Your task to perform on an android device: check google app version Image 0: 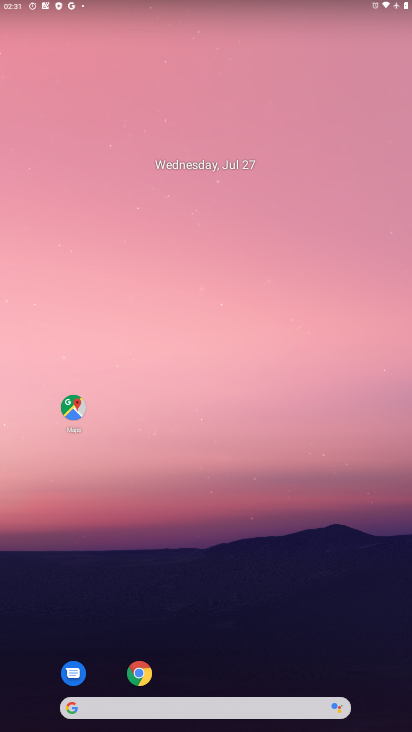
Step 0: drag from (208, 674) to (240, 4)
Your task to perform on an android device: check google app version Image 1: 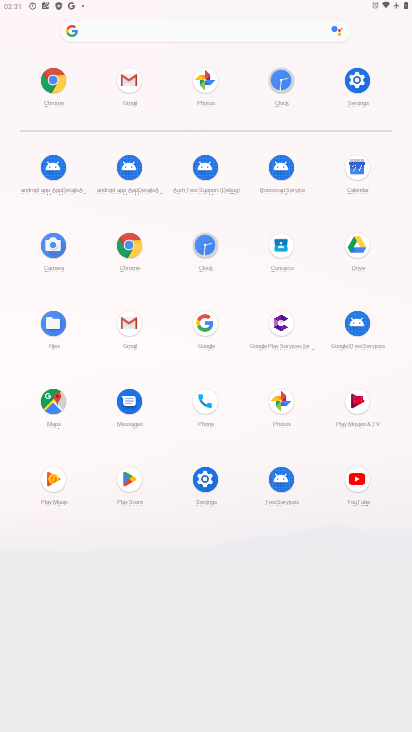
Step 1: click (202, 328)
Your task to perform on an android device: check google app version Image 2: 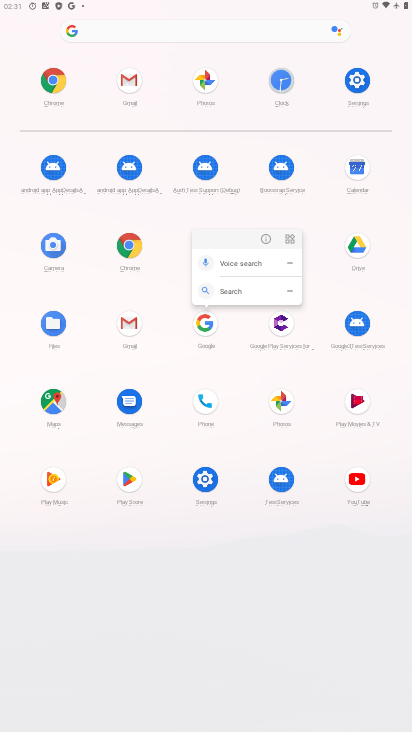
Step 2: click (259, 240)
Your task to perform on an android device: check google app version Image 3: 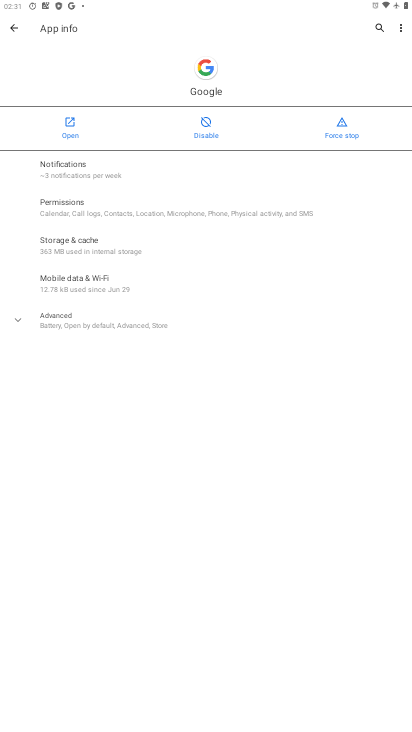
Step 3: click (23, 322)
Your task to perform on an android device: check google app version Image 4: 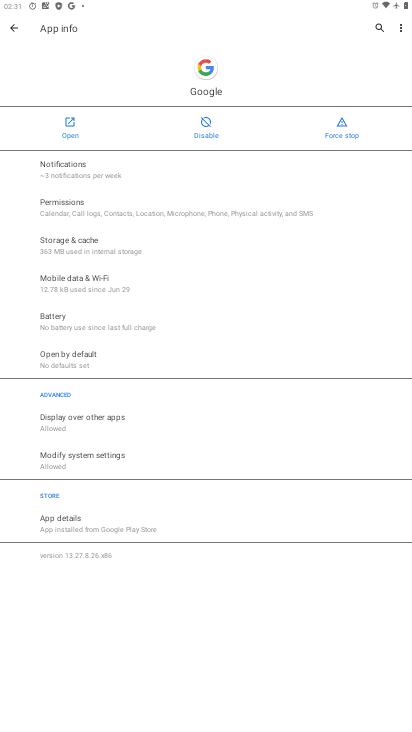
Step 4: task complete